Your task to perform on an android device: change your default location settings in chrome Image 0: 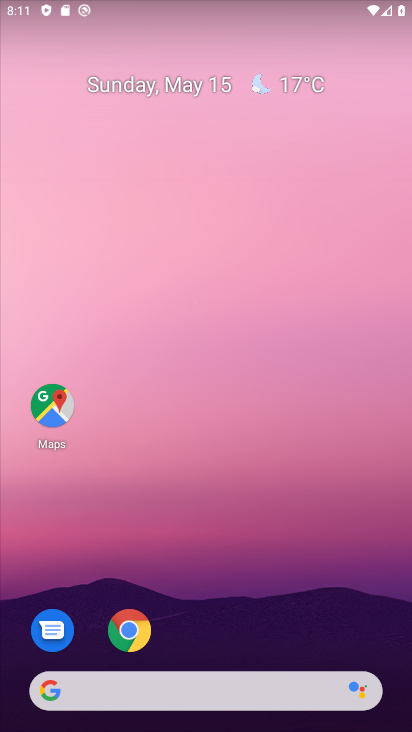
Step 0: drag from (356, 574) to (295, 21)
Your task to perform on an android device: change your default location settings in chrome Image 1: 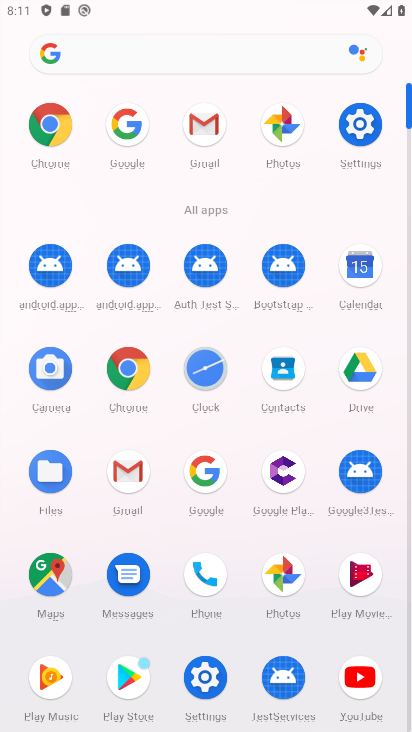
Step 1: click (56, 136)
Your task to perform on an android device: change your default location settings in chrome Image 2: 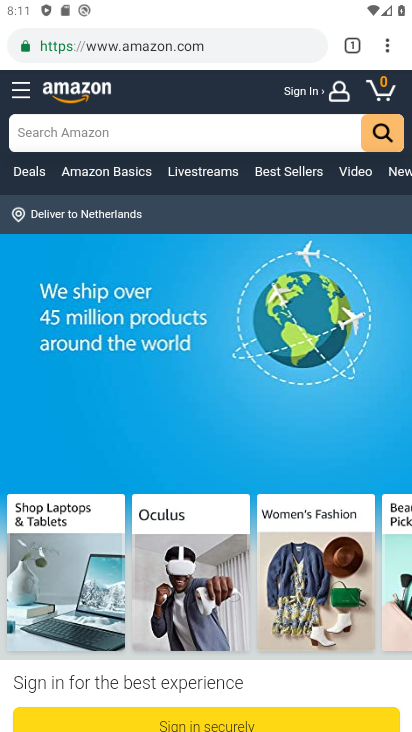
Step 2: drag from (379, 47) to (224, 497)
Your task to perform on an android device: change your default location settings in chrome Image 3: 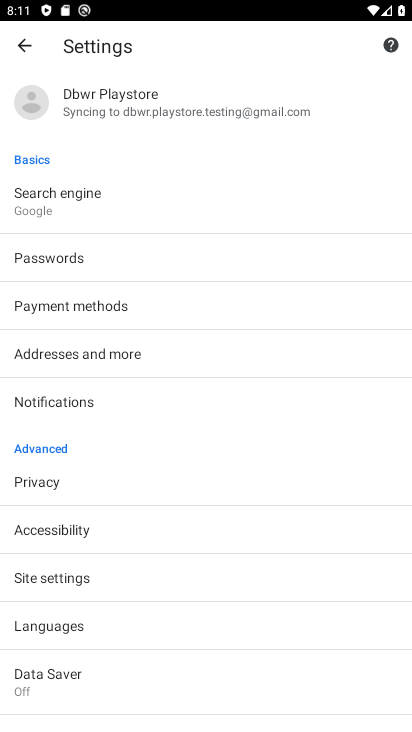
Step 3: drag from (104, 651) to (187, 155)
Your task to perform on an android device: change your default location settings in chrome Image 4: 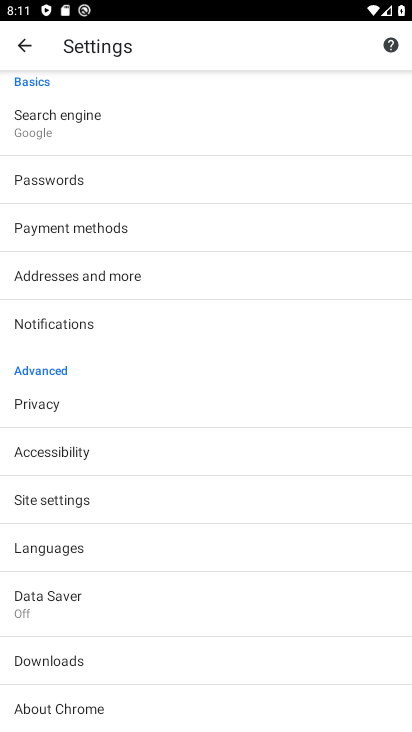
Step 4: click (47, 500)
Your task to perform on an android device: change your default location settings in chrome Image 5: 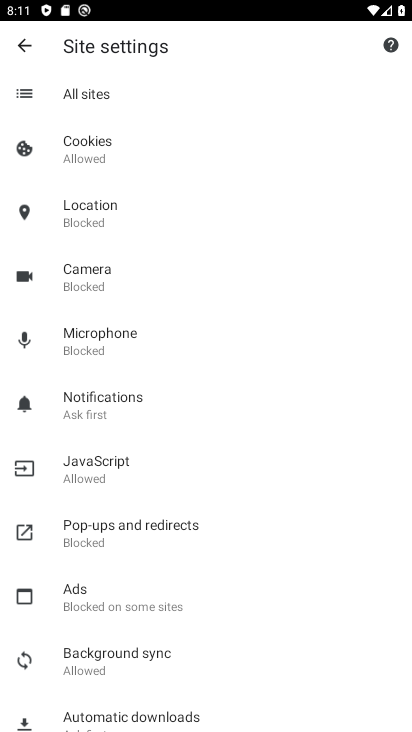
Step 5: drag from (123, 648) to (201, 241)
Your task to perform on an android device: change your default location settings in chrome Image 6: 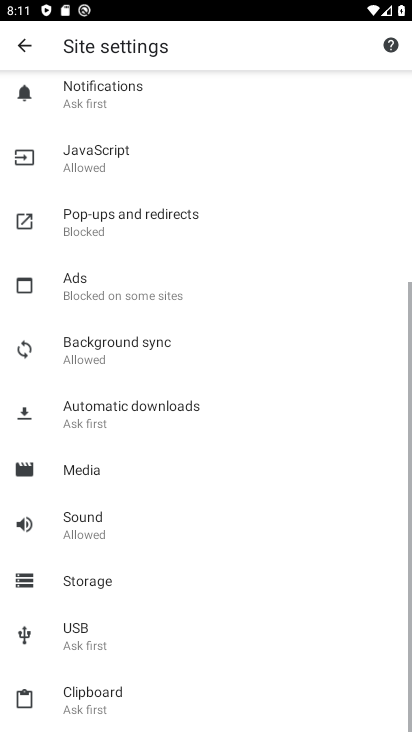
Step 6: drag from (167, 226) to (251, 653)
Your task to perform on an android device: change your default location settings in chrome Image 7: 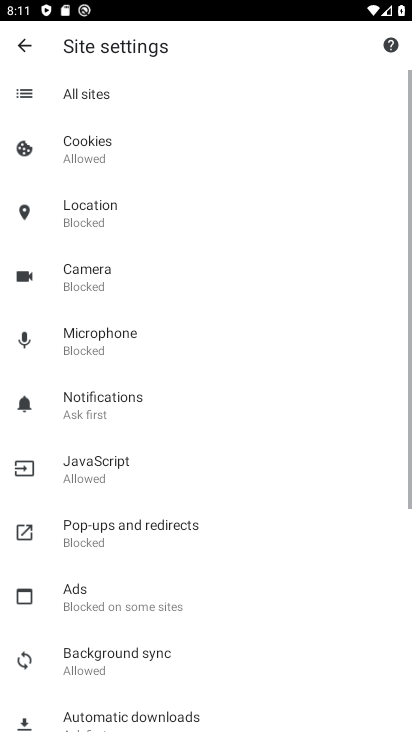
Step 7: click (112, 190)
Your task to perform on an android device: change your default location settings in chrome Image 8: 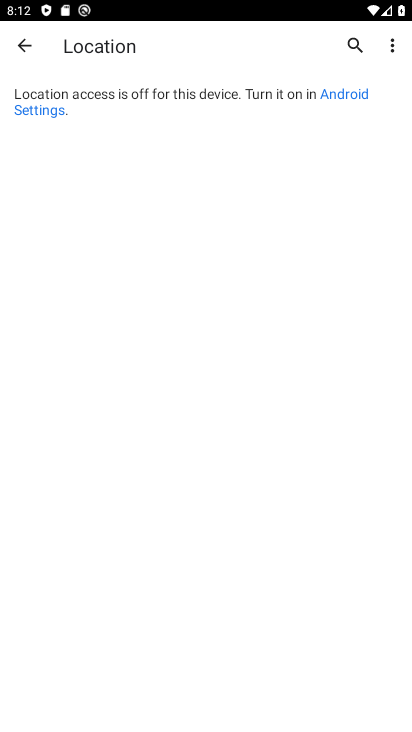
Step 8: click (342, 87)
Your task to perform on an android device: change your default location settings in chrome Image 9: 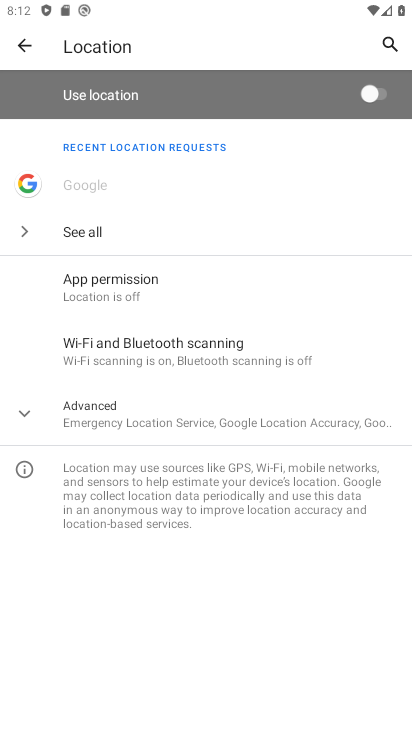
Step 9: click (376, 82)
Your task to perform on an android device: change your default location settings in chrome Image 10: 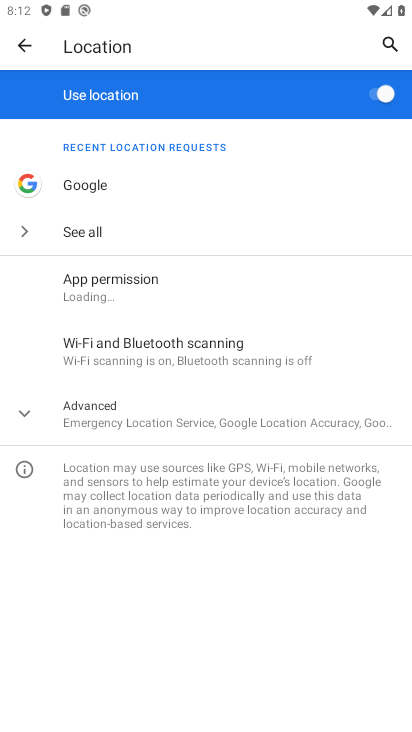
Step 10: task complete